Your task to perform on an android device: check the backup settings in the google photos Image 0: 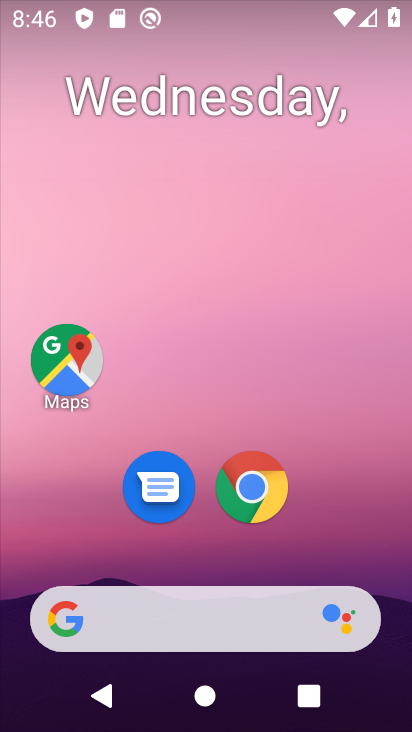
Step 0: drag from (390, 593) to (333, 122)
Your task to perform on an android device: check the backup settings in the google photos Image 1: 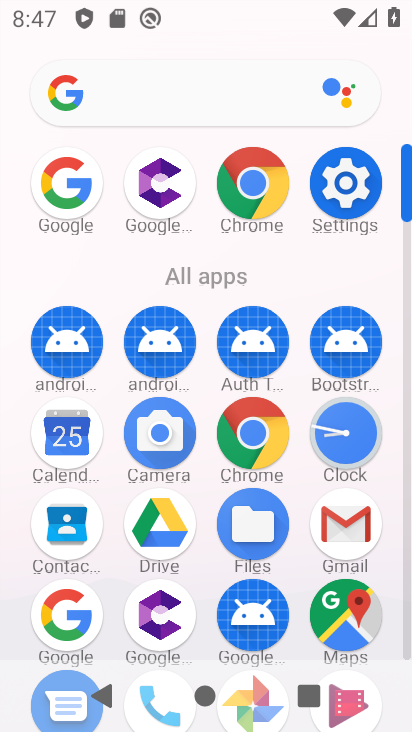
Step 1: click (409, 649)
Your task to perform on an android device: check the backup settings in the google photos Image 2: 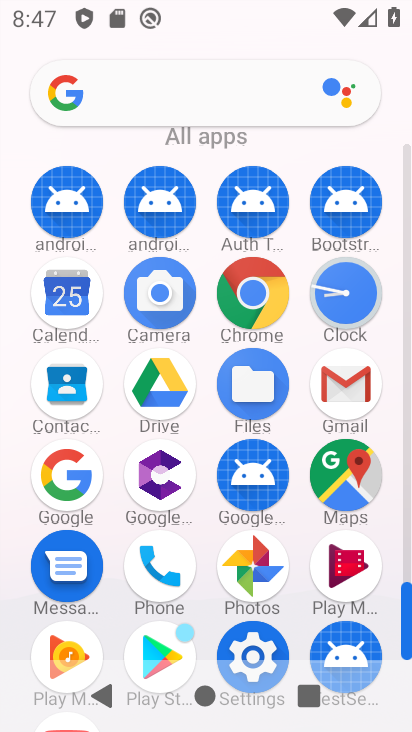
Step 2: click (258, 570)
Your task to perform on an android device: check the backup settings in the google photos Image 3: 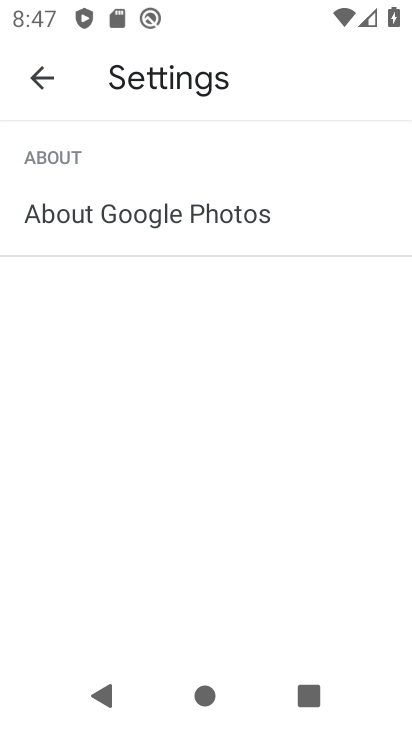
Step 3: click (48, 82)
Your task to perform on an android device: check the backup settings in the google photos Image 4: 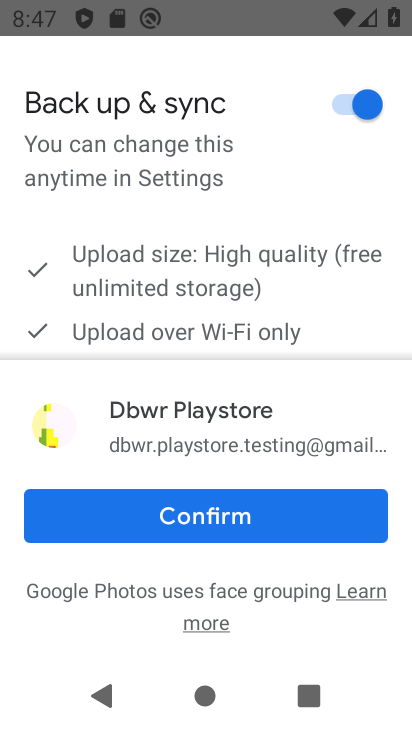
Step 4: click (275, 522)
Your task to perform on an android device: check the backup settings in the google photos Image 5: 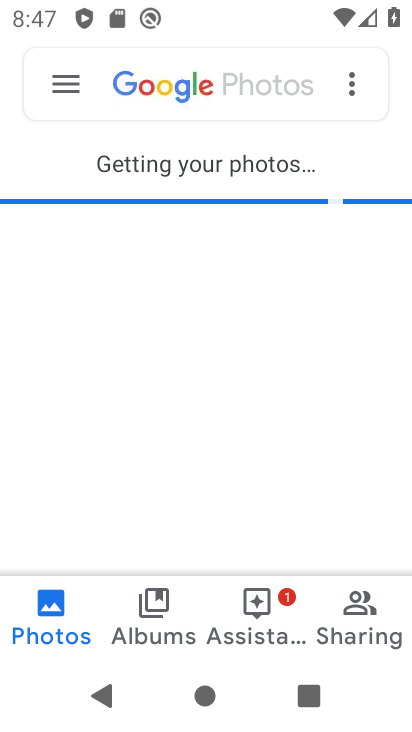
Step 5: click (66, 91)
Your task to perform on an android device: check the backup settings in the google photos Image 6: 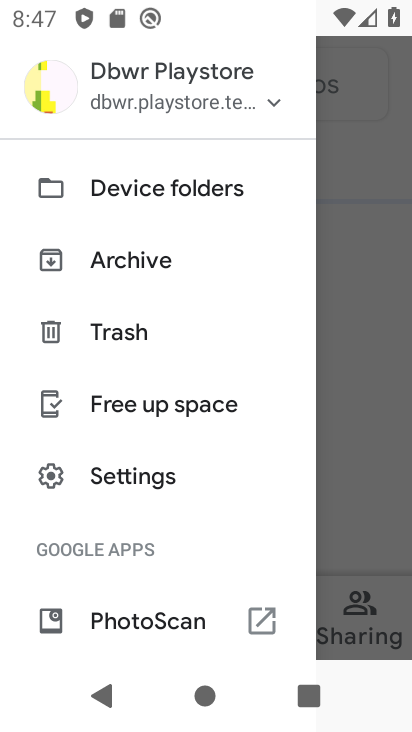
Step 6: click (124, 473)
Your task to perform on an android device: check the backup settings in the google photos Image 7: 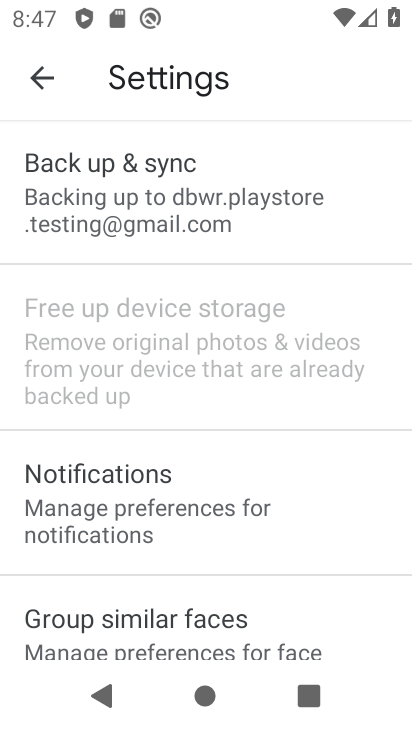
Step 7: click (213, 215)
Your task to perform on an android device: check the backup settings in the google photos Image 8: 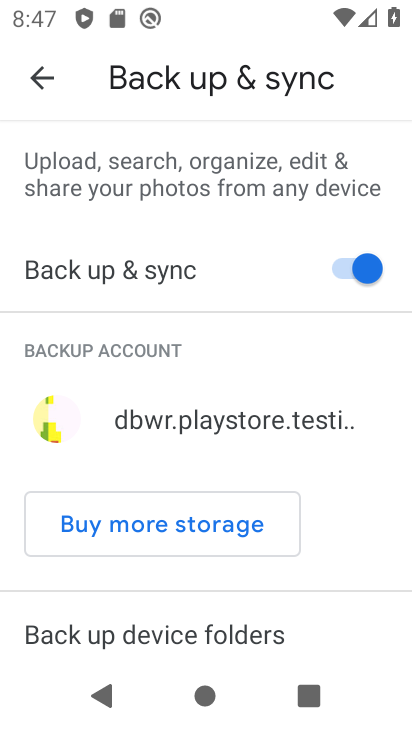
Step 8: task complete